Your task to perform on an android device: turn on the 24-hour format for clock Image 0: 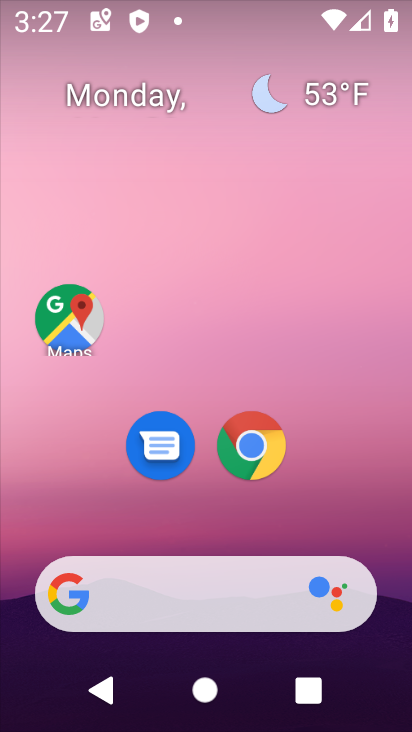
Step 0: drag from (222, 508) to (257, 7)
Your task to perform on an android device: turn on the 24-hour format for clock Image 1: 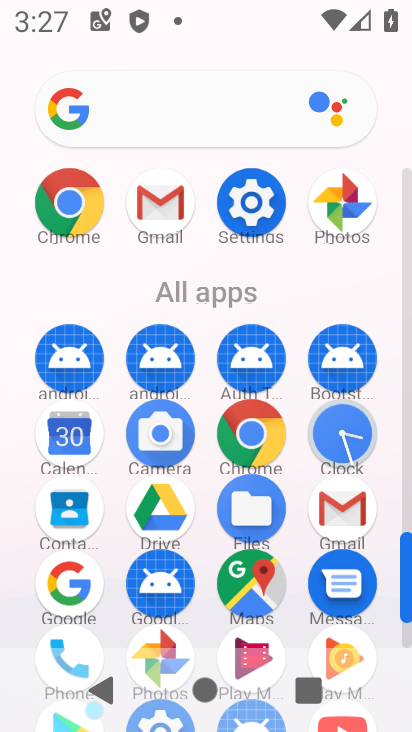
Step 1: click (267, 216)
Your task to perform on an android device: turn on the 24-hour format for clock Image 2: 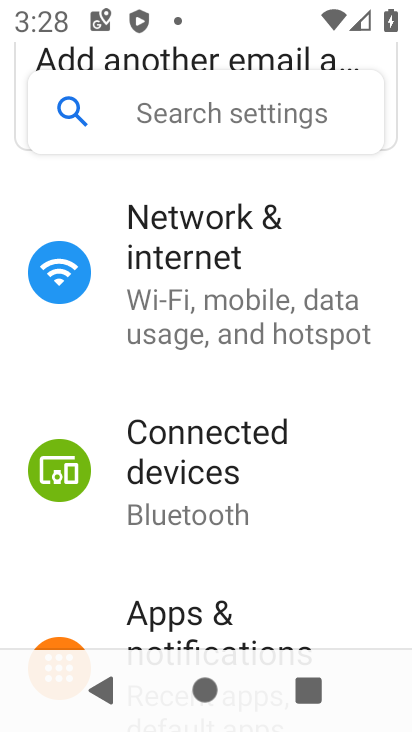
Step 2: drag from (223, 591) to (296, 0)
Your task to perform on an android device: turn on the 24-hour format for clock Image 3: 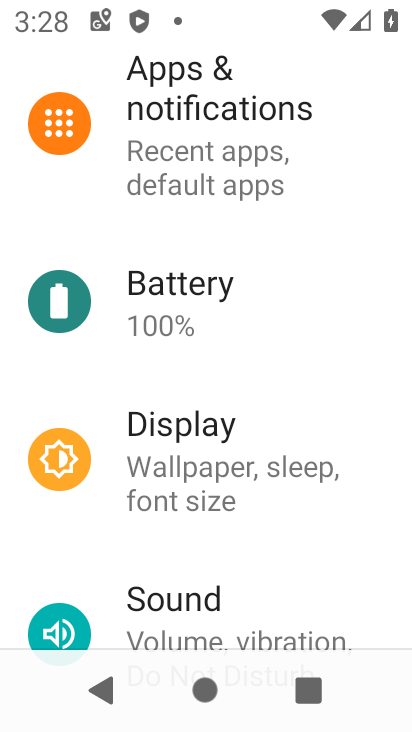
Step 3: drag from (228, 496) to (310, 27)
Your task to perform on an android device: turn on the 24-hour format for clock Image 4: 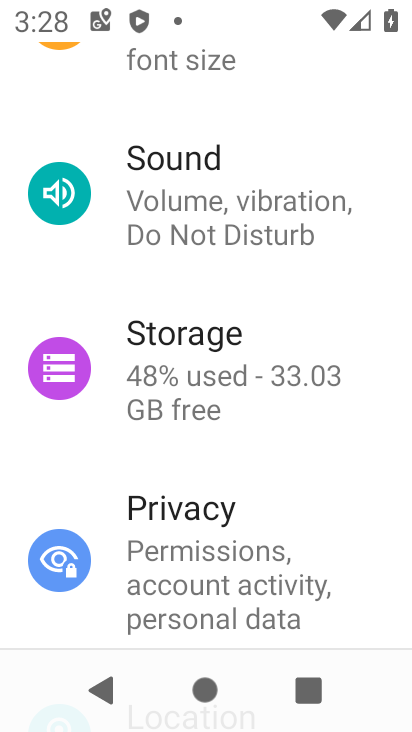
Step 4: drag from (237, 549) to (297, 164)
Your task to perform on an android device: turn on the 24-hour format for clock Image 5: 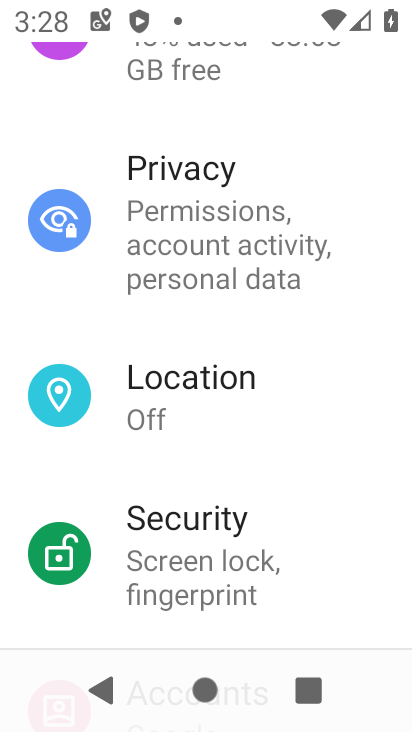
Step 5: drag from (189, 575) to (232, 218)
Your task to perform on an android device: turn on the 24-hour format for clock Image 6: 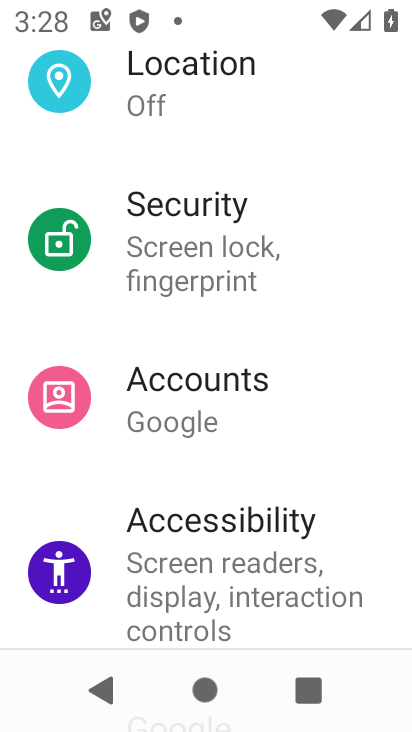
Step 6: drag from (152, 560) to (202, 329)
Your task to perform on an android device: turn on the 24-hour format for clock Image 7: 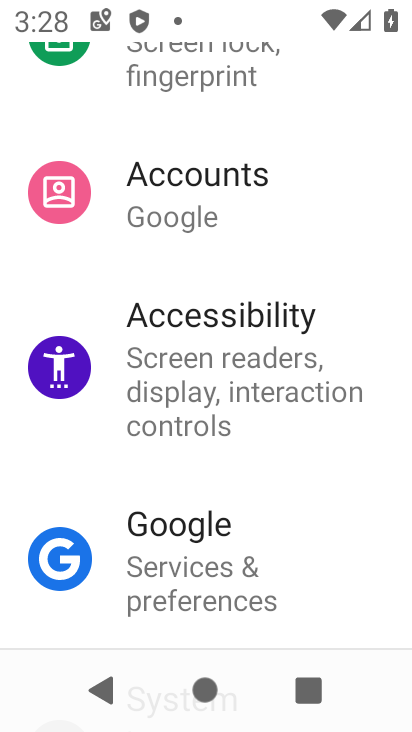
Step 7: drag from (190, 558) to (239, 216)
Your task to perform on an android device: turn on the 24-hour format for clock Image 8: 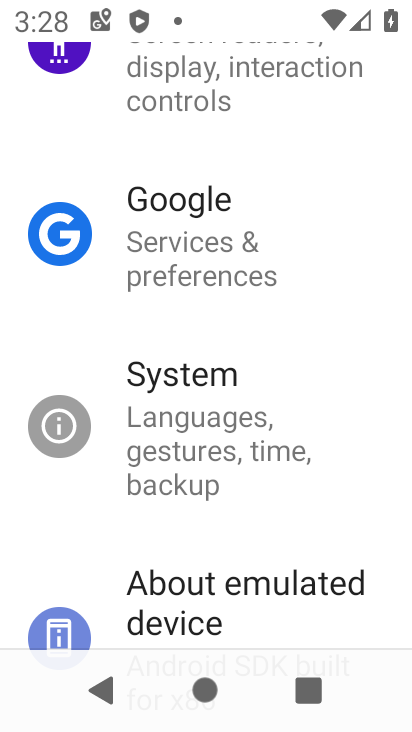
Step 8: drag from (230, 544) to (266, 229)
Your task to perform on an android device: turn on the 24-hour format for clock Image 9: 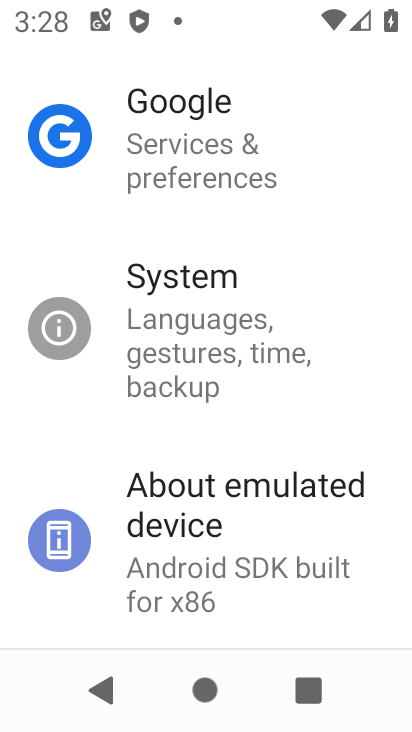
Step 9: click (195, 303)
Your task to perform on an android device: turn on the 24-hour format for clock Image 10: 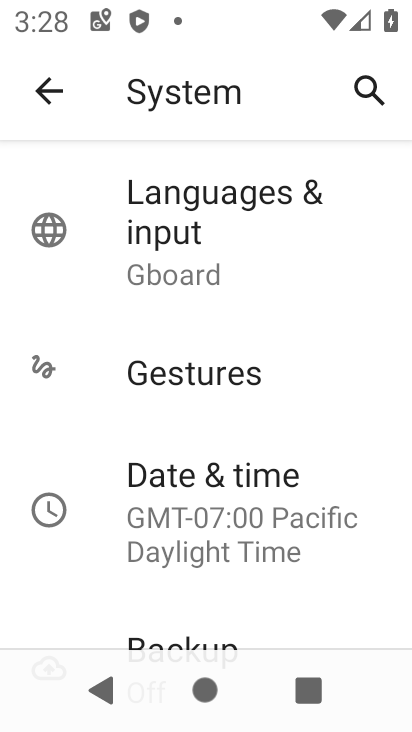
Step 10: click (193, 514)
Your task to perform on an android device: turn on the 24-hour format for clock Image 11: 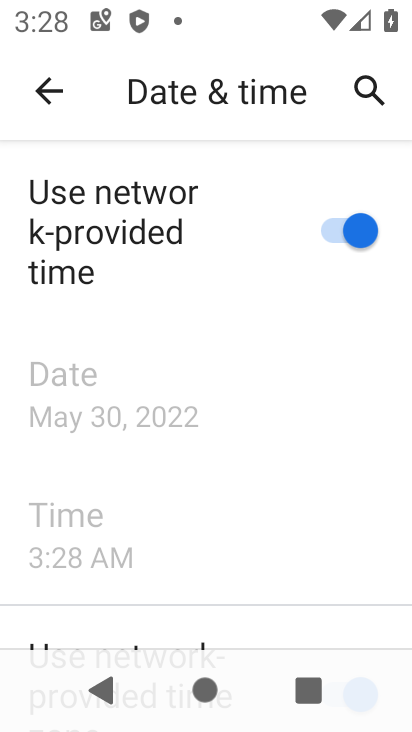
Step 11: drag from (162, 514) to (222, 138)
Your task to perform on an android device: turn on the 24-hour format for clock Image 12: 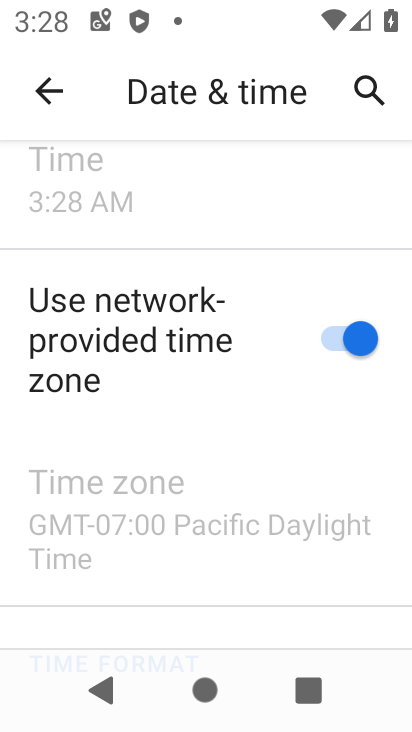
Step 12: drag from (242, 459) to (283, 117)
Your task to perform on an android device: turn on the 24-hour format for clock Image 13: 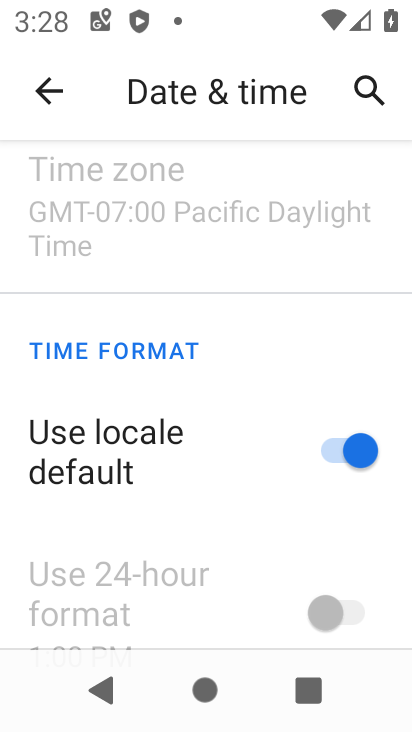
Step 13: click (313, 473)
Your task to perform on an android device: turn on the 24-hour format for clock Image 14: 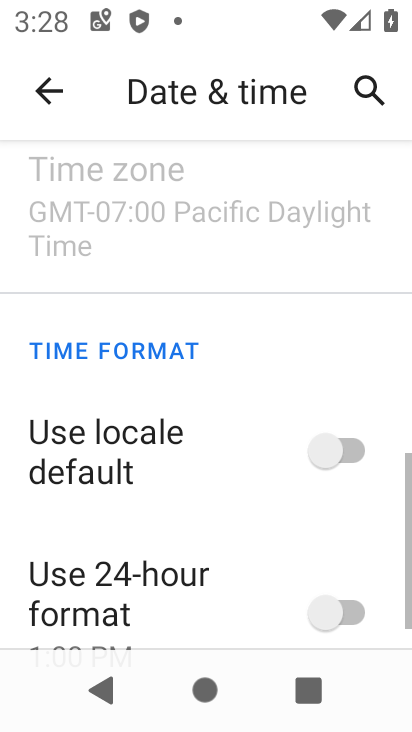
Step 14: click (367, 600)
Your task to perform on an android device: turn on the 24-hour format for clock Image 15: 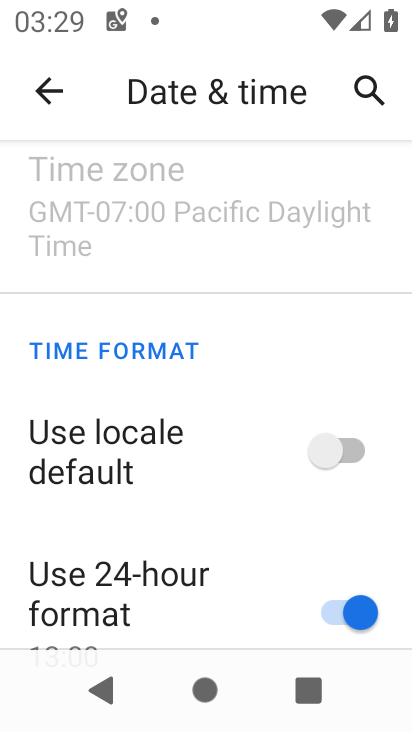
Step 15: task complete